Your task to perform on an android device: turn on notifications settings in the gmail app Image 0: 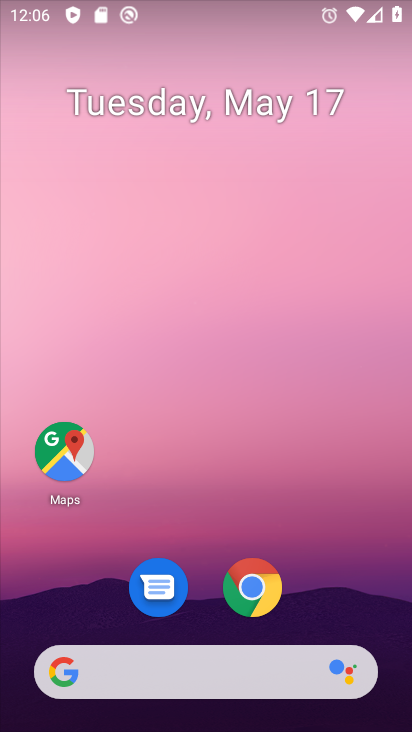
Step 0: drag from (365, 610) to (282, 58)
Your task to perform on an android device: turn on notifications settings in the gmail app Image 1: 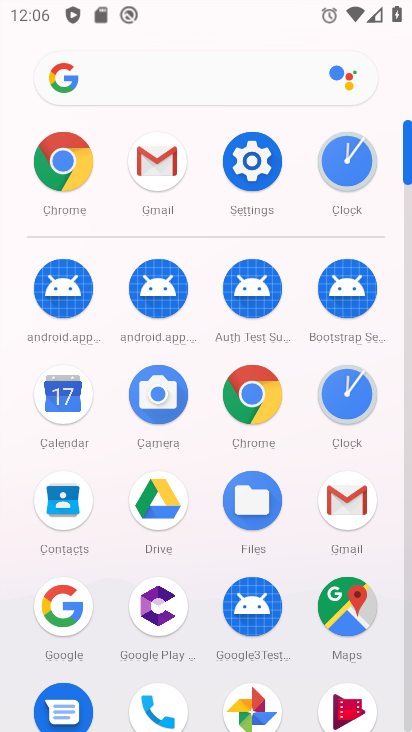
Step 1: click (337, 511)
Your task to perform on an android device: turn on notifications settings in the gmail app Image 2: 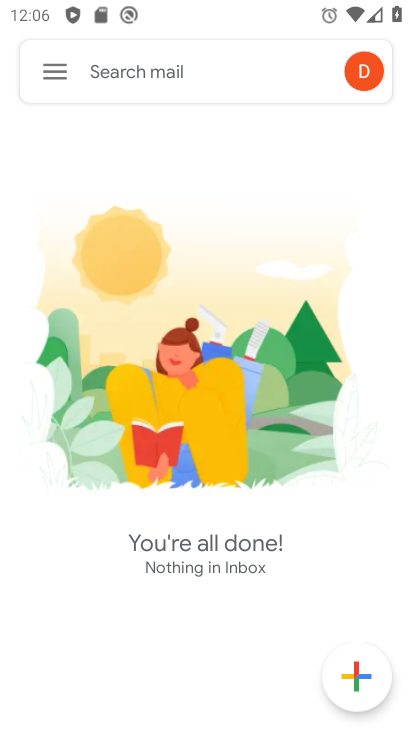
Step 2: click (44, 60)
Your task to perform on an android device: turn on notifications settings in the gmail app Image 3: 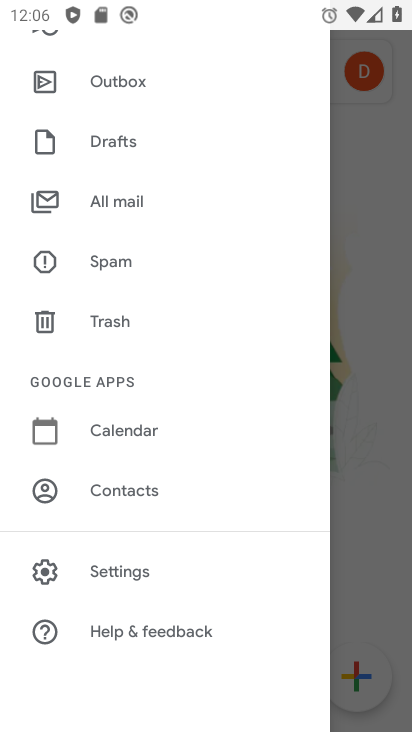
Step 3: click (173, 581)
Your task to perform on an android device: turn on notifications settings in the gmail app Image 4: 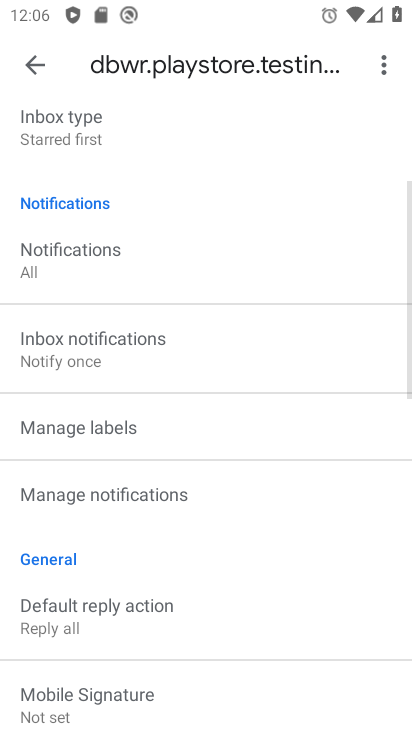
Step 4: click (120, 284)
Your task to perform on an android device: turn on notifications settings in the gmail app Image 5: 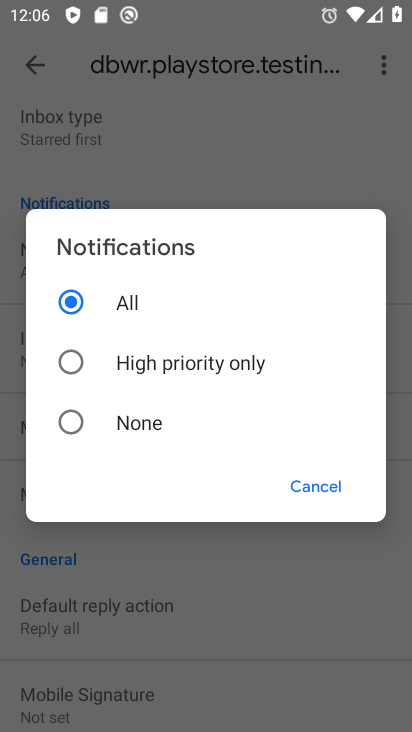
Step 5: task complete